Your task to perform on an android device: Open Chrome and go to settings Image 0: 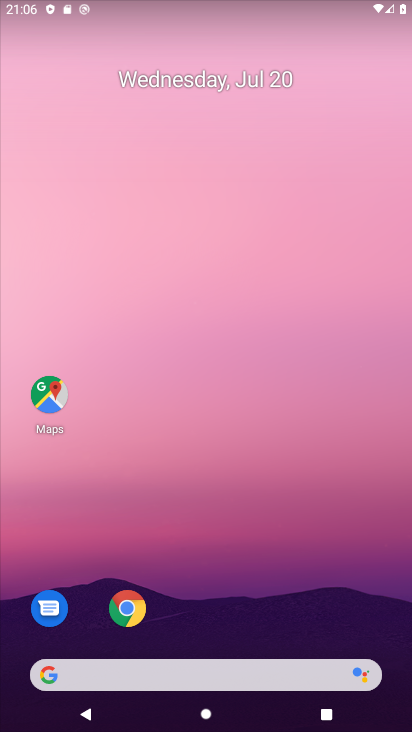
Step 0: drag from (259, 630) to (232, 211)
Your task to perform on an android device: Open Chrome and go to settings Image 1: 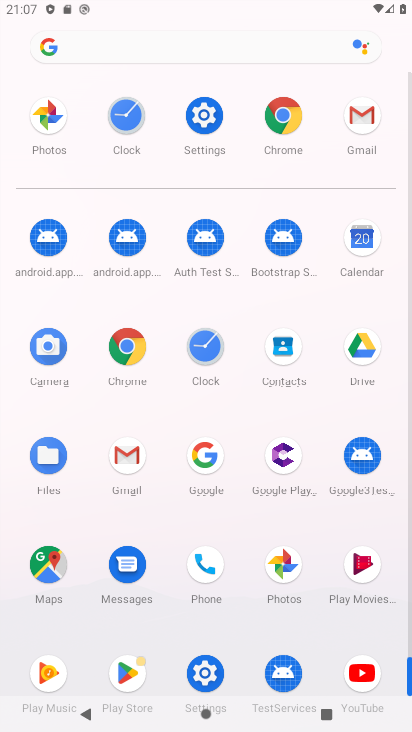
Step 1: click (207, 114)
Your task to perform on an android device: Open Chrome and go to settings Image 2: 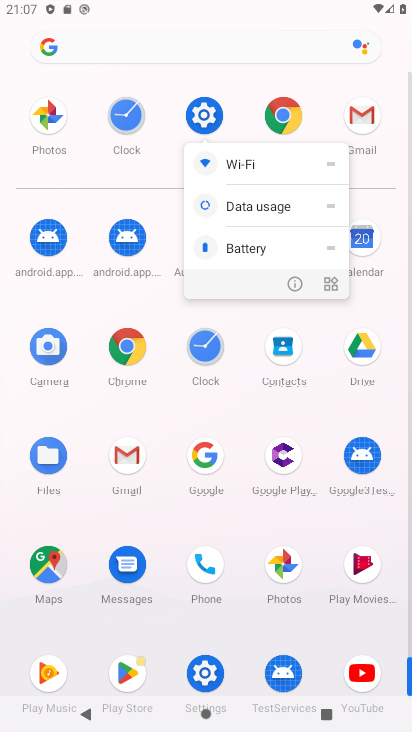
Step 2: click (206, 114)
Your task to perform on an android device: Open Chrome and go to settings Image 3: 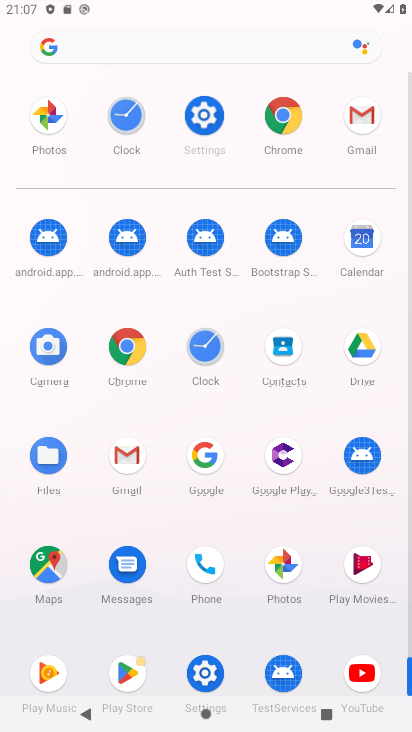
Step 3: click (205, 113)
Your task to perform on an android device: Open Chrome and go to settings Image 4: 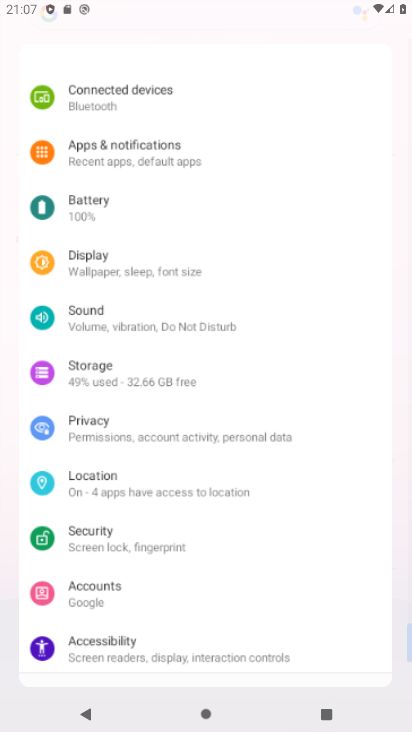
Step 4: click (206, 113)
Your task to perform on an android device: Open Chrome and go to settings Image 5: 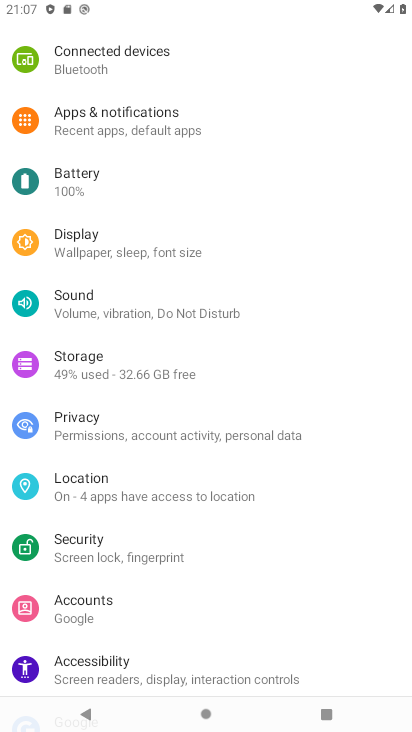
Step 5: press home button
Your task to perform on an android device: Open Chrome and go to settings Image 6: 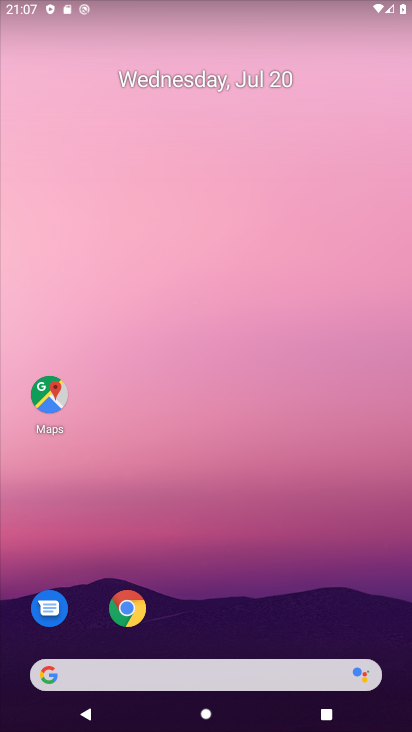
Step 6: drag from (296, 693) to (276, 124)
Your task to perform on an android device: Open Chrome and go to settings Image 7: 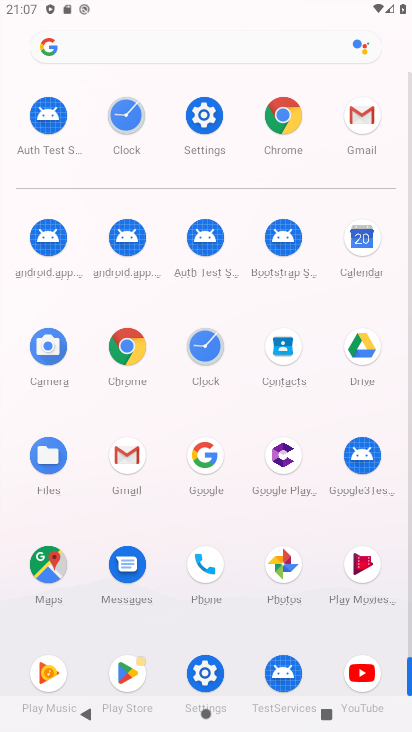
Step 7: click (285, 108)
Your task to perform on an android device: Open Chrome and go to settings Image 8: 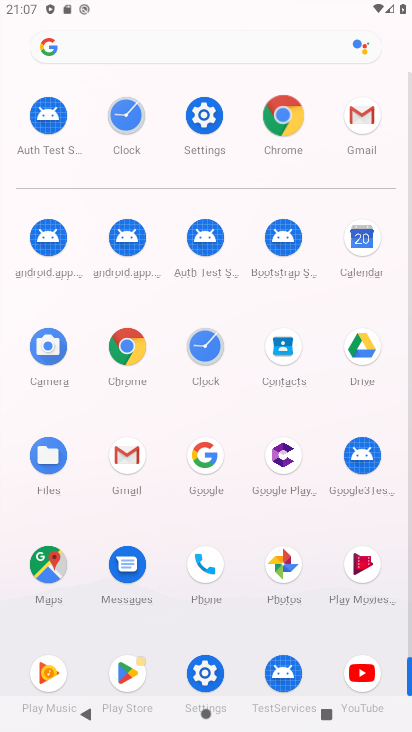
Step 8: click (285, 107)
Your task to perform on an android device: Open Chrome and go to settings Image 9: 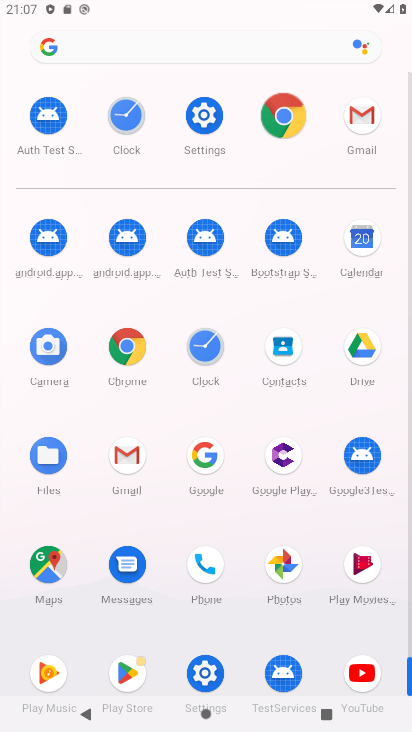
Step 9: click (285, 106)
Your task to perform on an android device: Open Chrome and go to settings Image 10: 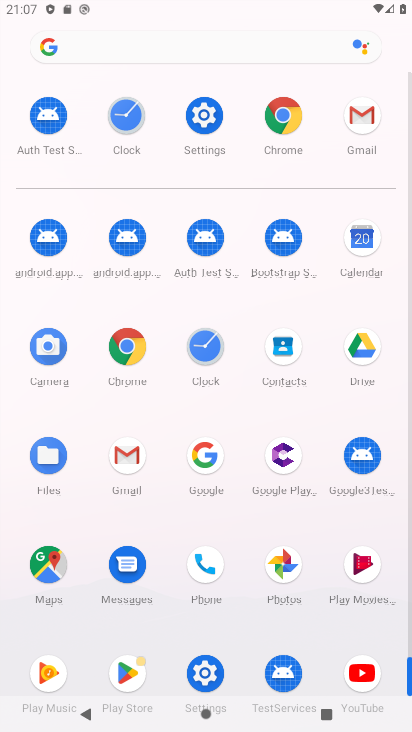
Step 10: click (287, 127)
Your task to perform on an android device: Open Chrome and go to settings Image 11: 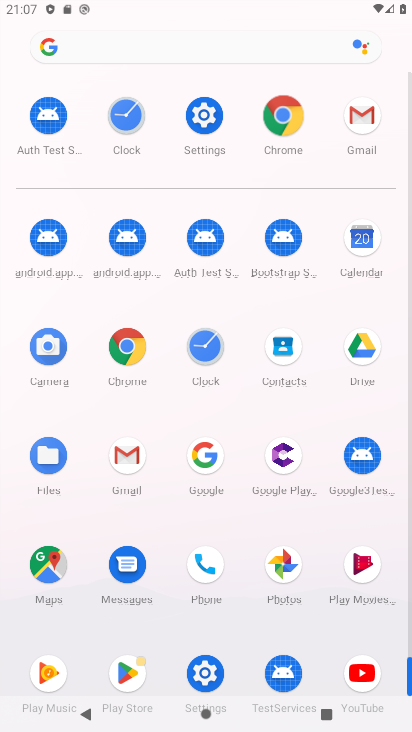
Step 11: click (292, 118)
Your task to perform on an android device: Open Chrome and go to settings Image 12: 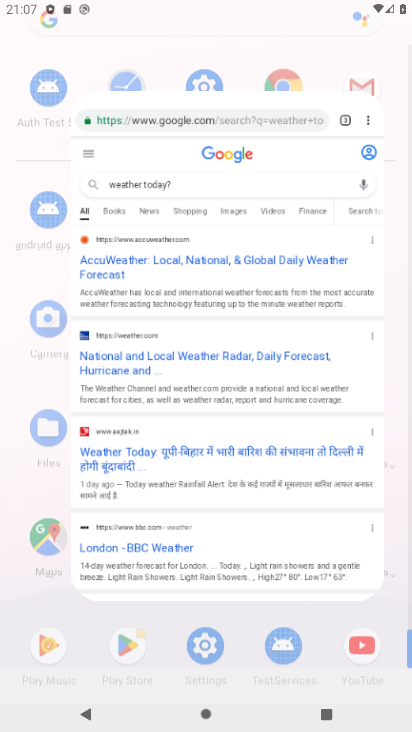
Step 12: click (292, 118)
Your task to perform on an android device: Open Chrome and go to settings Image 13: 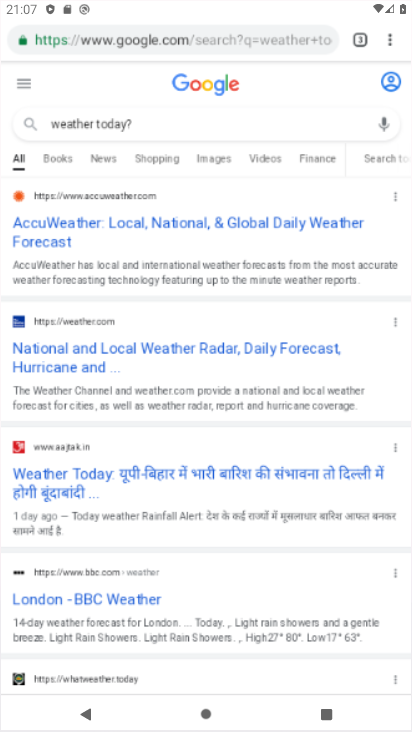
Step 13: click (292, 119)
Your task to perform on an android device: Open Chrome and go to settings Image 14: 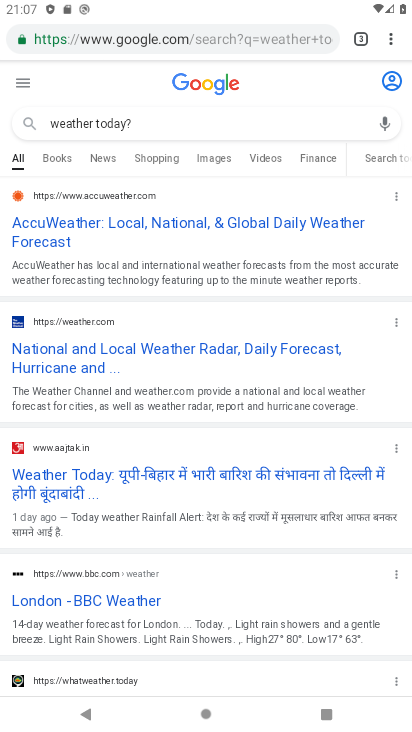
Step 14: drag from (393, 33) to (253, 437)
Your task to perform on an android device: Open Chrome and go to settings Image 15: 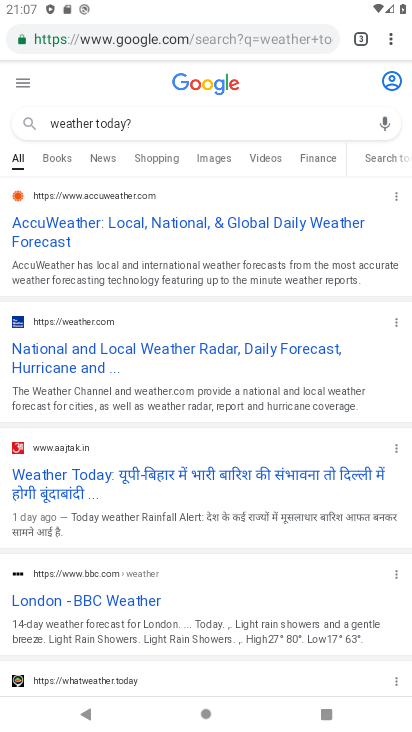
Step 15: click (259, 429)
Your task to perform on an android device: Open Chrome and go to settings Image 16: 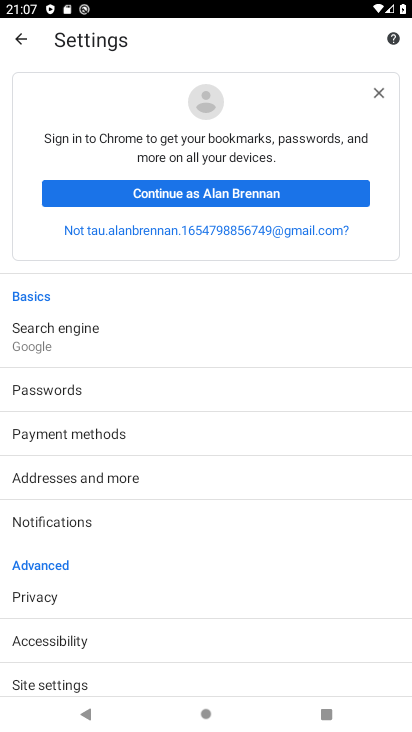
Step 16: task complete